Your task to perform on an android device: change the clock display to analog Image 0: 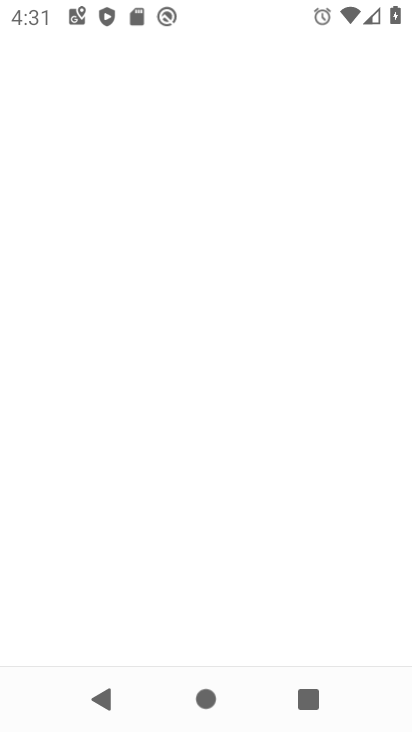
Step 0: click (326, 466)
Your task to perform on an android device: change the clock display to analog Image 1: 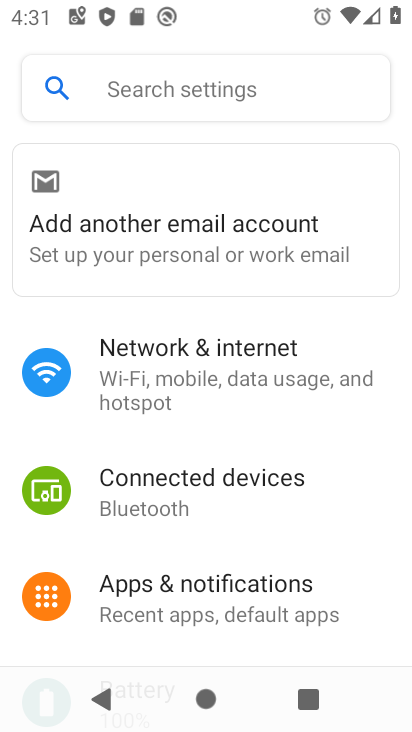
Step 1: press home button
Your task to perform on an android device: change the clock display to analog Image 2: 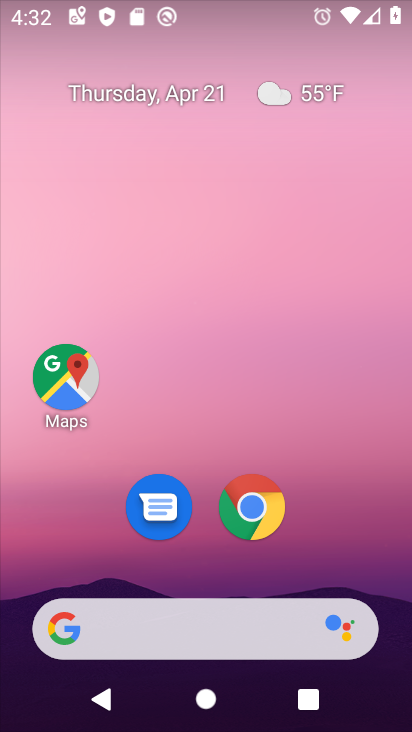
Step 2: drag from (319, 423) to (328, 114)
Your task to perform on an android device: change the clock display to analog Image 3: 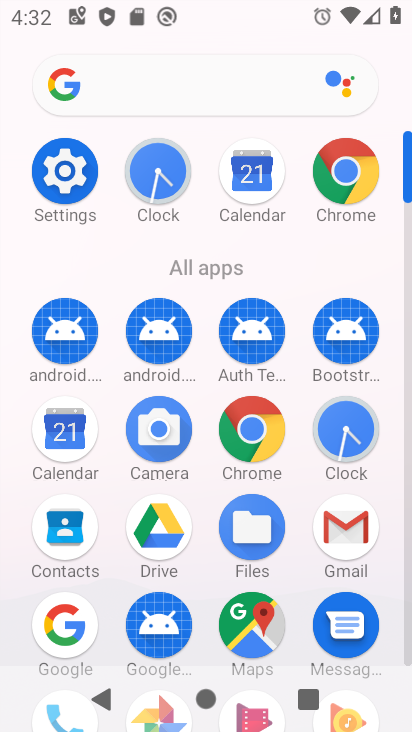
Step 3: click (171, 175)
Your task to perform on an android device: change the clock display to analog Image 4: 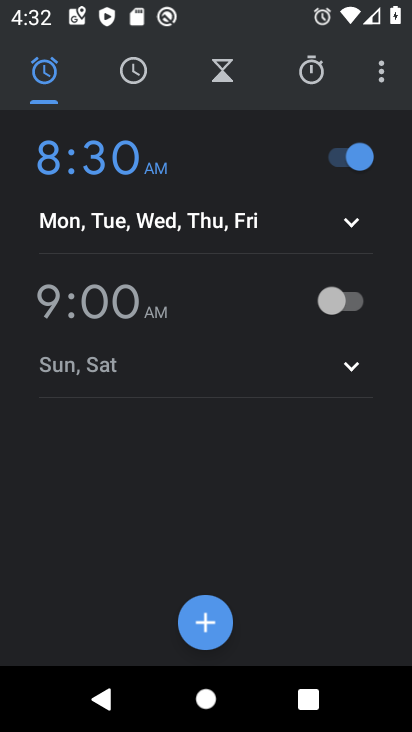
Step 4: click (376, 62)
Your task to perform on an android device: change the clock display to analog Image 5: 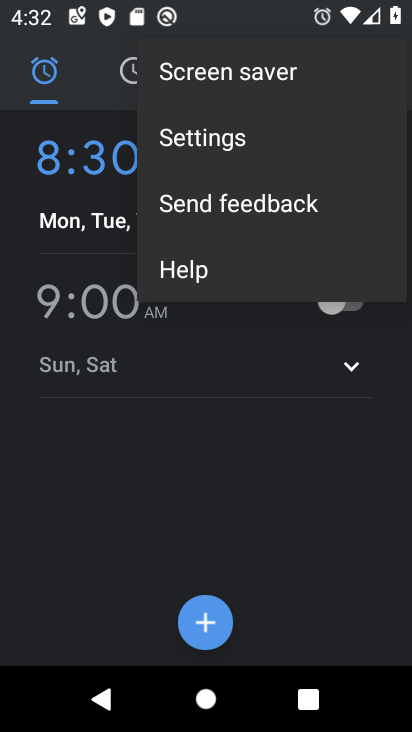
Step 5: click (230, 139)
Your task to perform on an android device: change the clock display to analog Image 6: 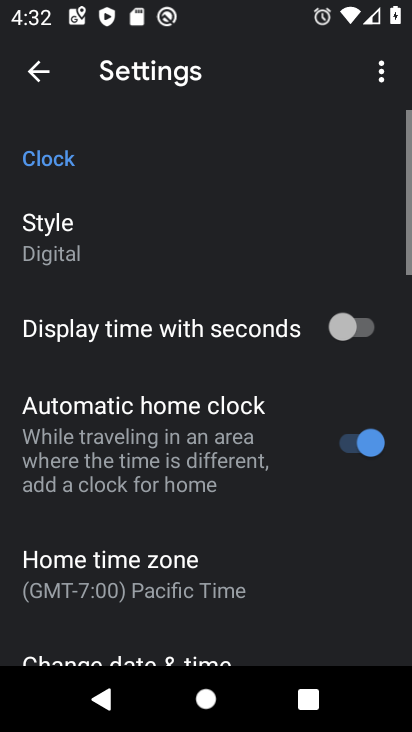
Step 6: click (61, 246)
Your task to perform on an android device: change the clock display to analog Image 7: 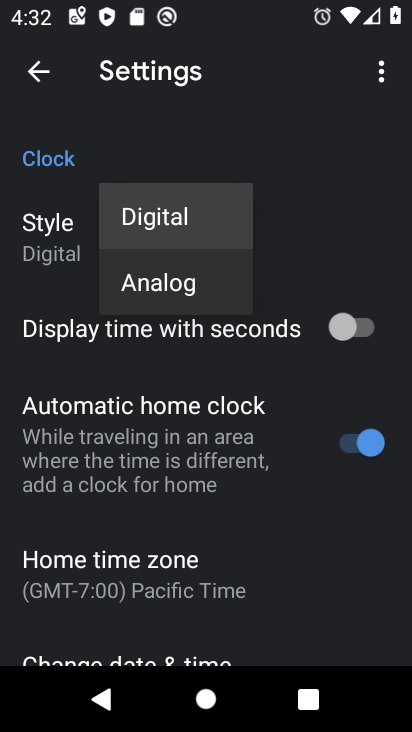
Step 7: click (148, 292)
Your task to perform on an android device: change the clock display to analog Image 8: 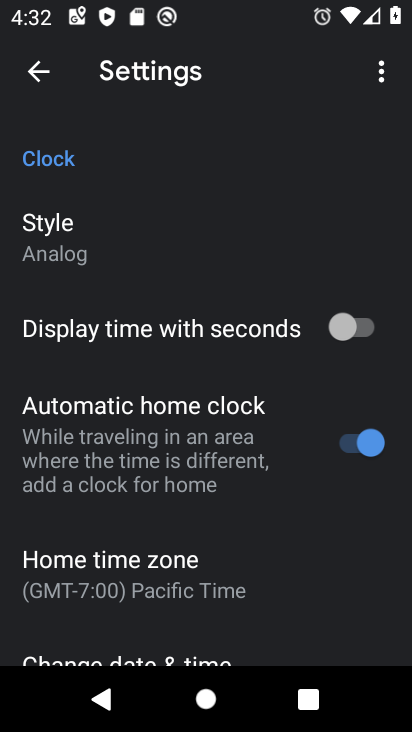
Step 8: task complete